Your task to perform on an android device: change the clock display to show seconds Image 0: 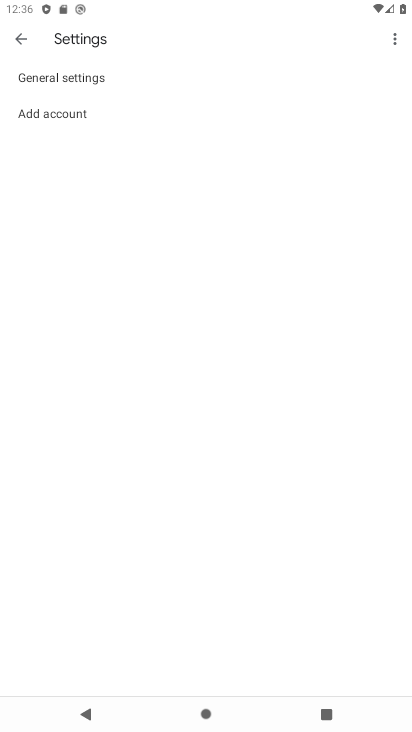
Step 0: press home button
Your task to perform on an android device: change the clock display to show seconds Image 1: 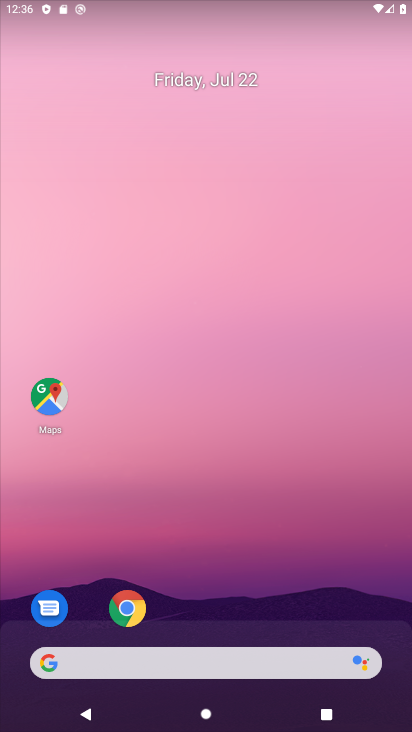
Step 1: drag from (211, 636) to (220, 8)
Your task to perform on an android device: change the clock display to show seconds Image 2: 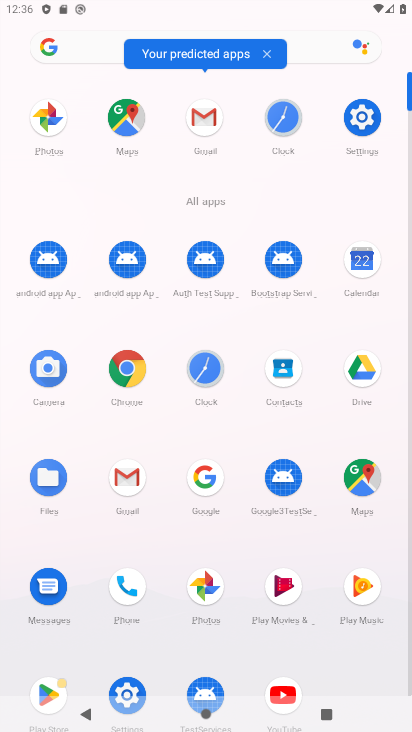
Step 2: click (201, 362)
Your task to perform on an android device: change the clock display to show seconds Image 3: 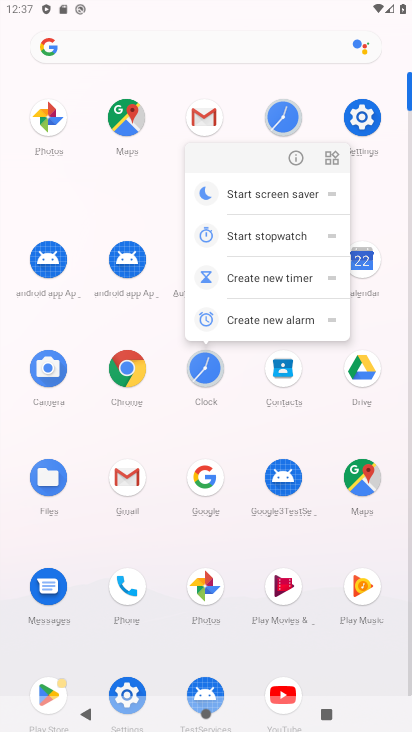
Step 3: click (281, 109)
Your task to perform on an android device: change the clock display to show seconds Image 4: 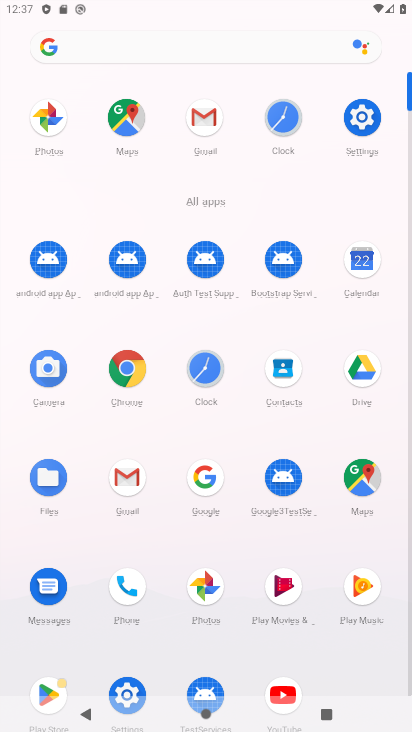
Step 4: click (194, 372)
Your task to perform on an android device: change the clock display to show seconds Image 5: 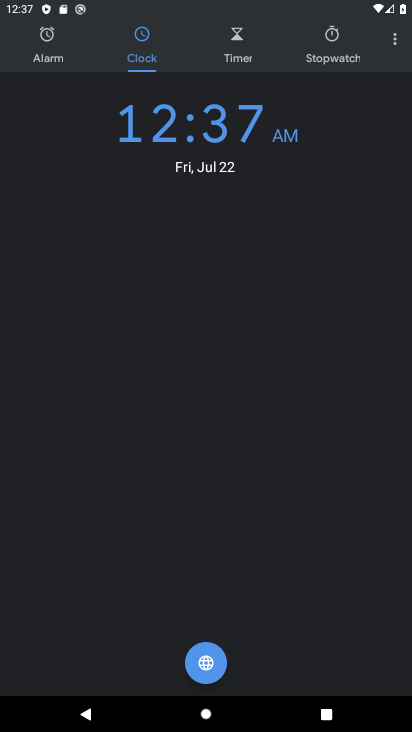
Step 5: click (396, 39)
Your task to perform on an android device: change the clock display to show seconds Image 6: 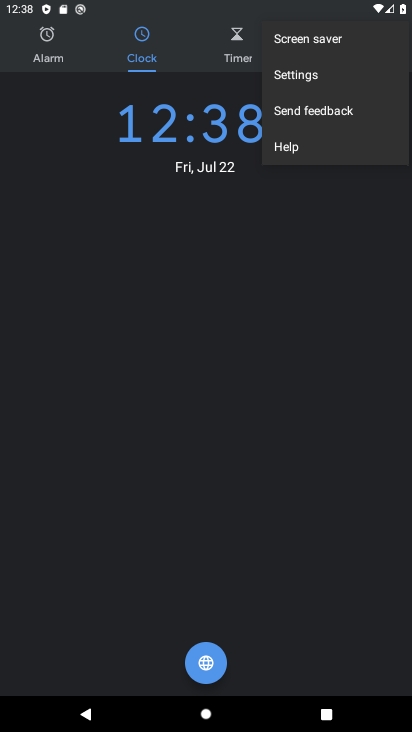
Step 6: click (318, 78)
Your task to perform on an android device: change the clock display to show seconds Image 7: 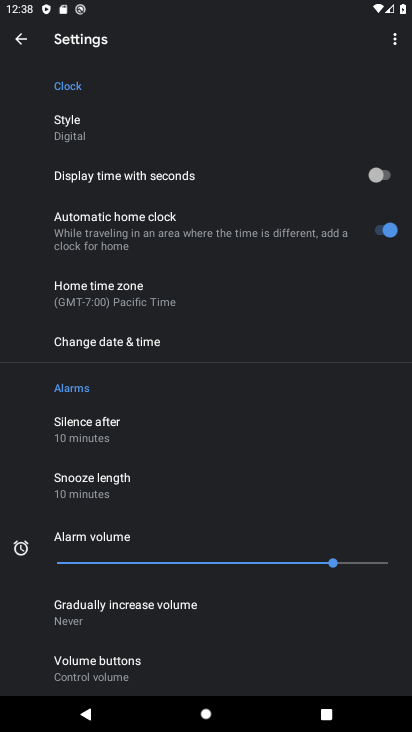
Step 7: click (376, 169)
Your task to perform on an android device: change the clock display to show seconds Image 8: 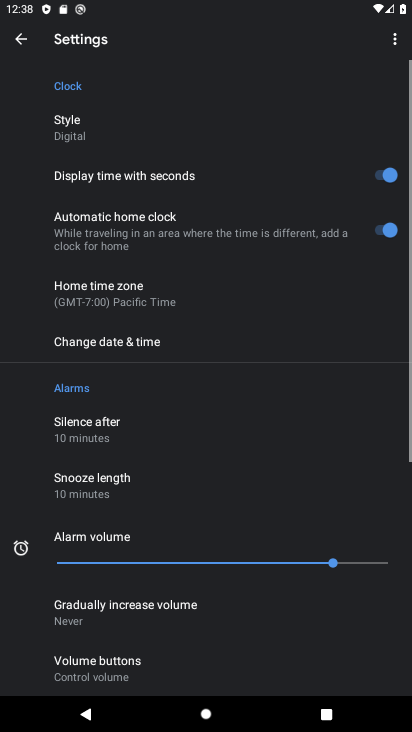
Step 8: task complete